Your task to perform on an android device: Go to Google Image 0: 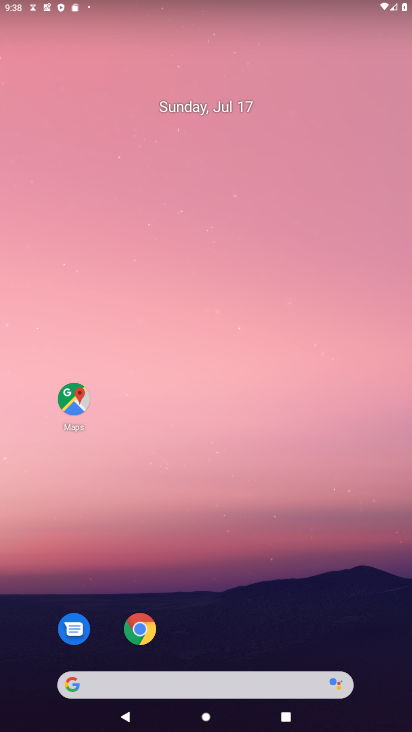
Step 0: drag from (219, 621) to (230, 167)
Your task to perform on an android device: Go to Google Image 1: 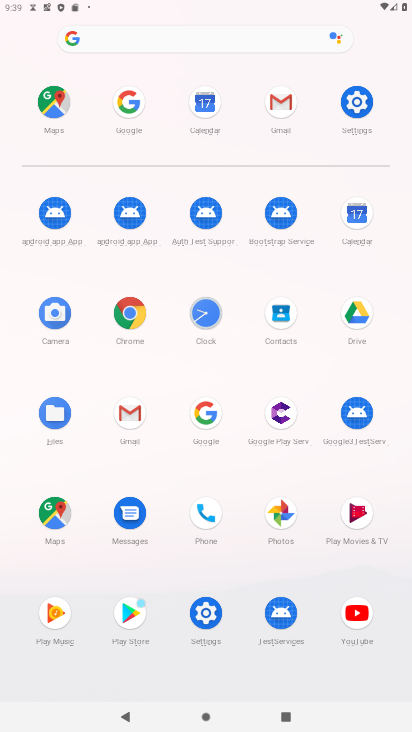
Step 1: click (204, 418)
Your task to perform on an android device: Go to Google Image 2: 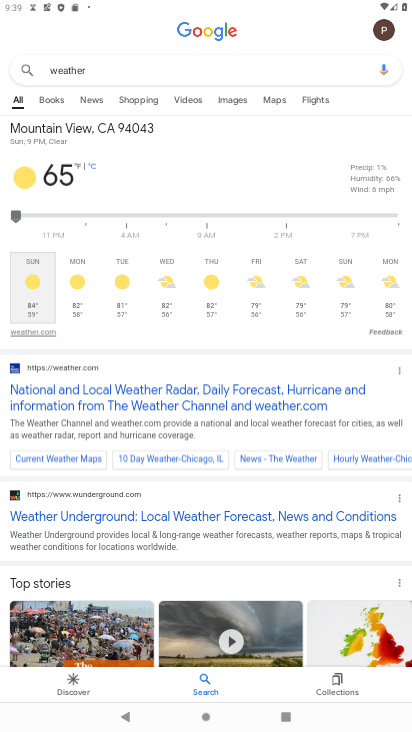
Step 2: task complete